Your task to perform on an android device: Go to display settings Image 0: 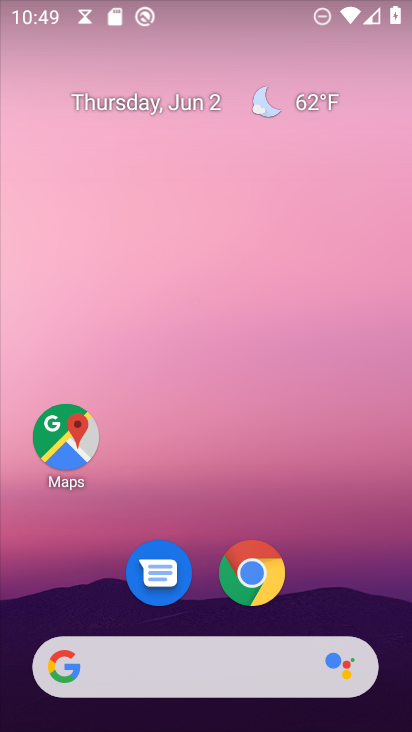
Step 0: drag from (345, 557) to (209, 109)
Your task to perform on an android device: Go to display settings Image 1: 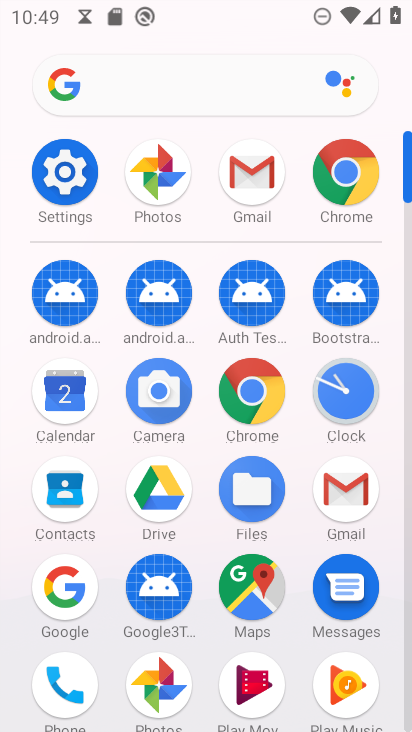
Step 1: click (63, 173)
Your task to perform on an android device: Go to display settings Image 2: 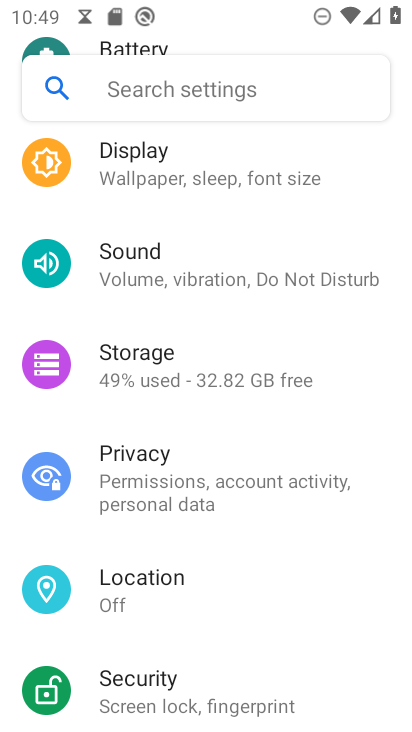
Step 2: drag from (200, 433) to (275, 270)
Your task to perform on an android device: Go to display settings Image 3: 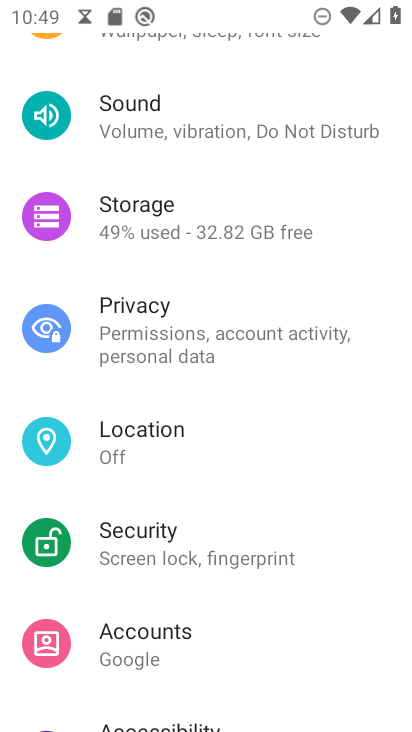
Step 3: drag from (263, 207) to (303, 299)
Your task to perform on an android device: Go to display settings Image 4: 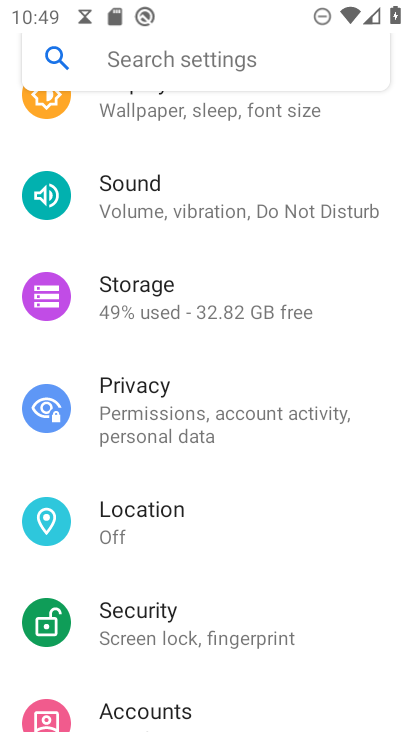
Step 4: drag from (242, 179) to (265, 355)
Your task to perform on an android device: Go to display settings Image 5: 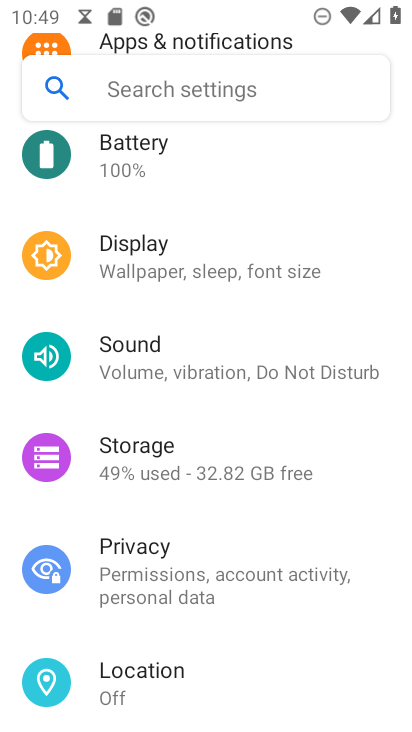
Step 5: click (180, 266)
Your task to perform on an android device: Go to display settings Image 6: 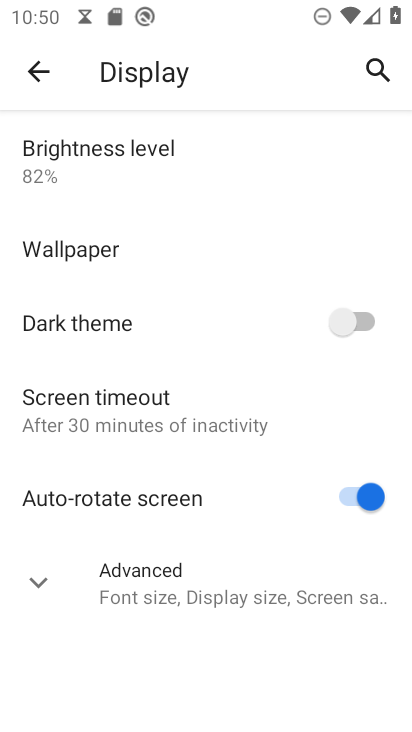
Step 6: task complete